Your task to perform on an android device: Open Chrome and go to settings Image 0: 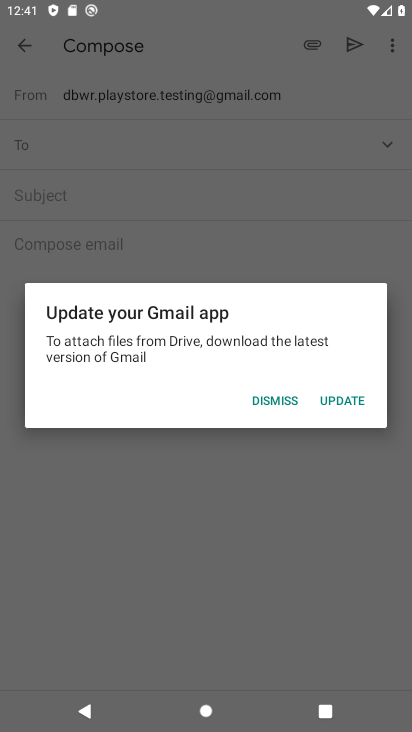
Step 0: press home button
Your task to perform on an android device: Open Chrome and go to settings Image 1: 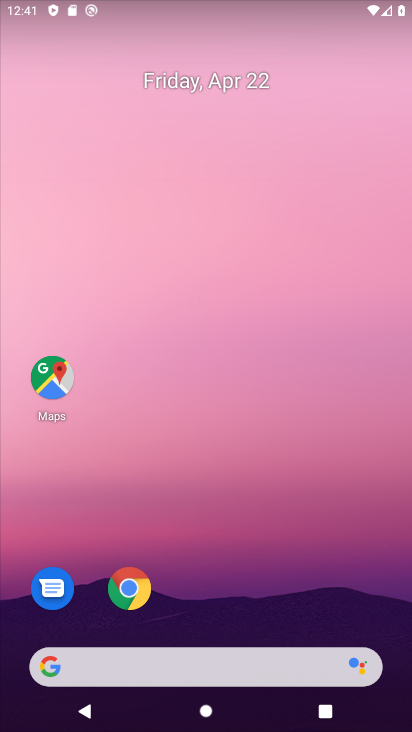
Step 1: drag from (396, 580) to (374, 145)
Your task to perform on an android device: Open Chrome and go to settings Image 2: 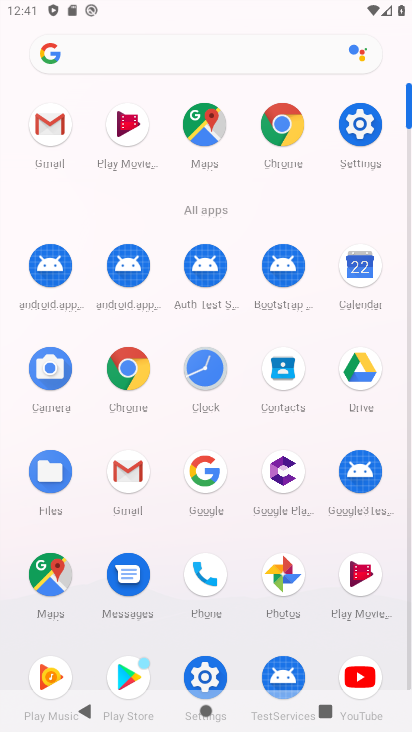
Step 2: click (140, 371)
Your task to perform on an android device: Open Chrome and go to settings Image 3: 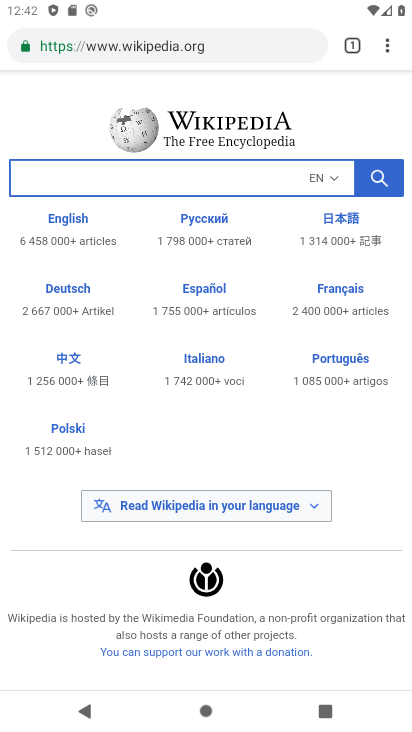
Step 3: task complete